Your task to perform on an android device: turn smart compose on in the gmail app Image 0: 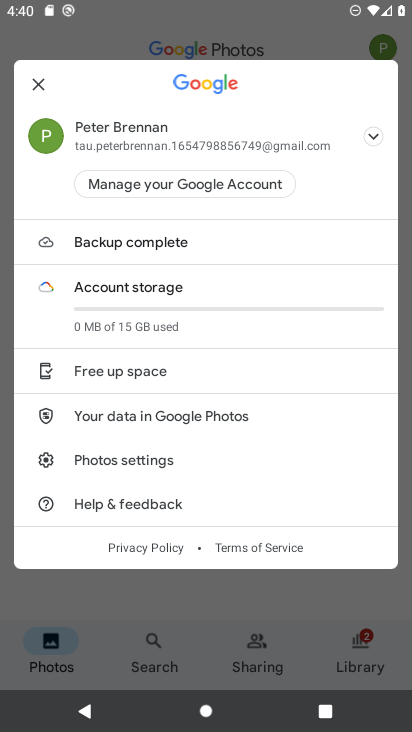
Step 0: press home button
Your task to perform on an android device: turn smart compose on in the gmail app Image 1: 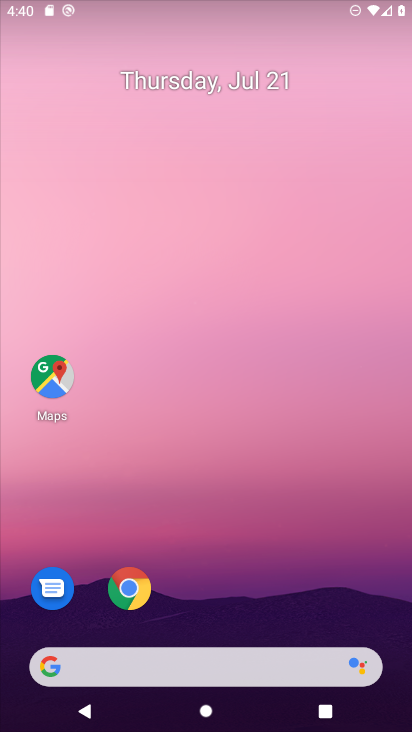
Step 1: drag from (264, 541) to (271, 236)
Your task to perform on an android device: turn smart compose on in the gmail app Image 2: 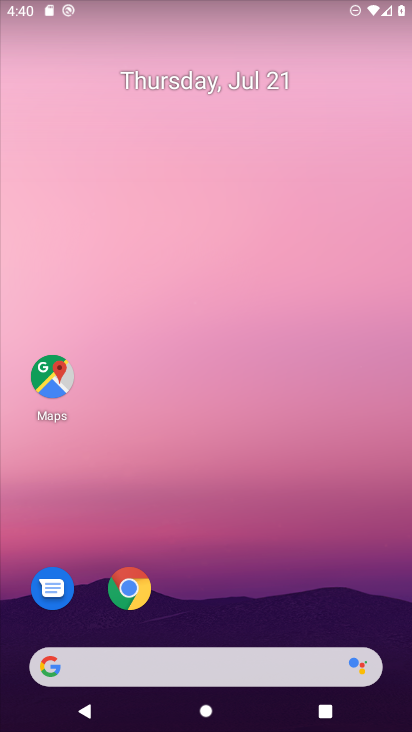
Step 2: drag from (191, 648) to (281, 221)
Your task to perform on an android device: turn smart compose on in the gmail app Image 3: 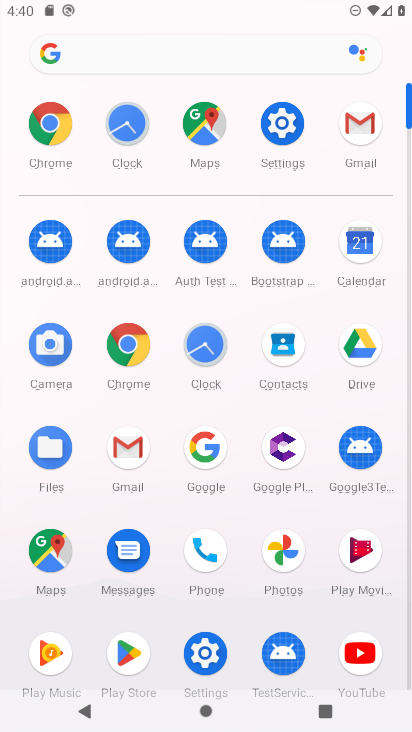
Step 3: click (132, 475)
Your task to perform on an android device: turn smart compose on in the gmail app Image 4: 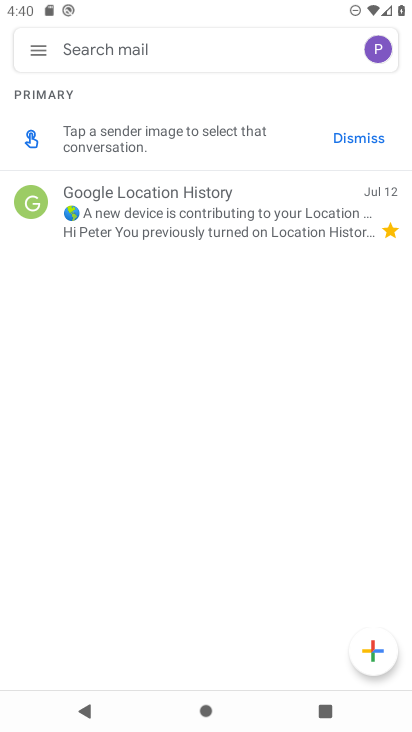
Step 4: click (42, 54)
Your task to perform on an android device: turn smart compose on in the gmail app Image 5: 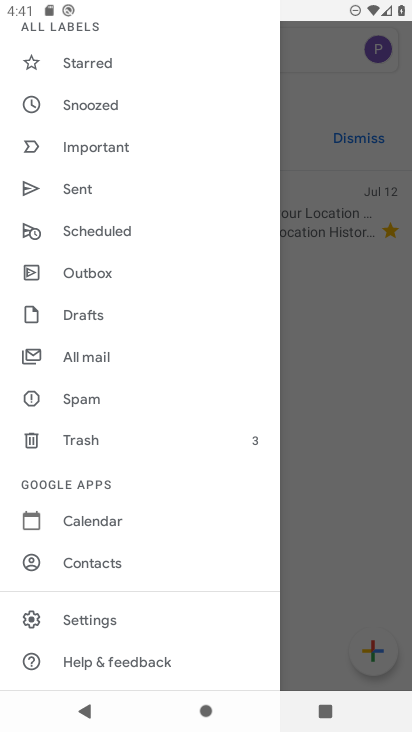
Step 5: drag from (109, 361) to (158, 627)
Your task to perform on an android device: turn smart compose on in the gmail app Image 6: 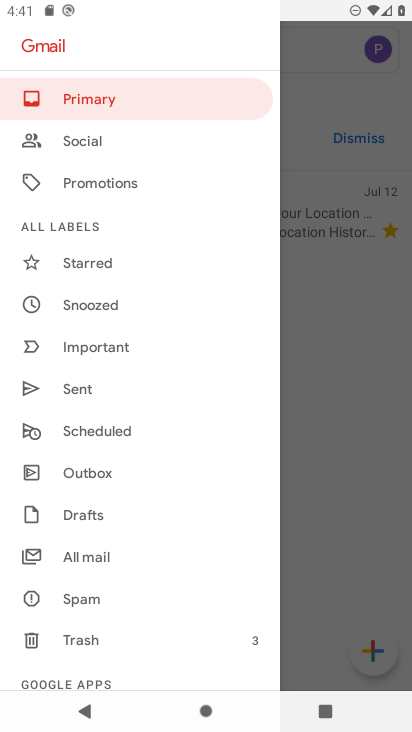
Step 6: drag from (102, 590) to (165, 170)
Your task to perform on an android device: turn smart compose on in the gmail app Image 7: 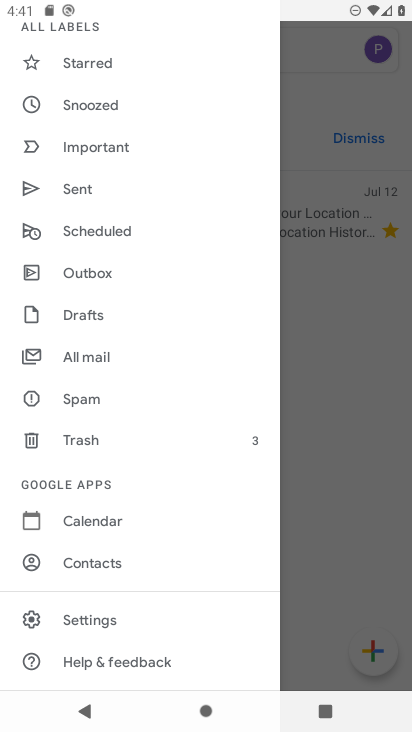
Step 7: click (101, 600)
Your task to perform on an android device: turn smart compose on in the gmail app Image 8: 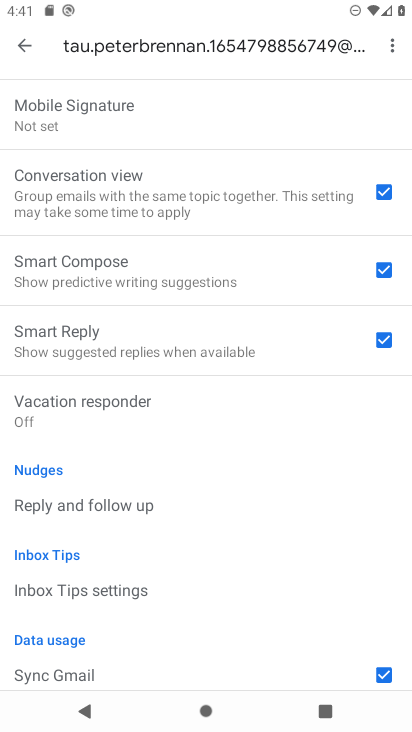
Step 8: task complete